Your task to perform on an android device: Open maps Image 0: 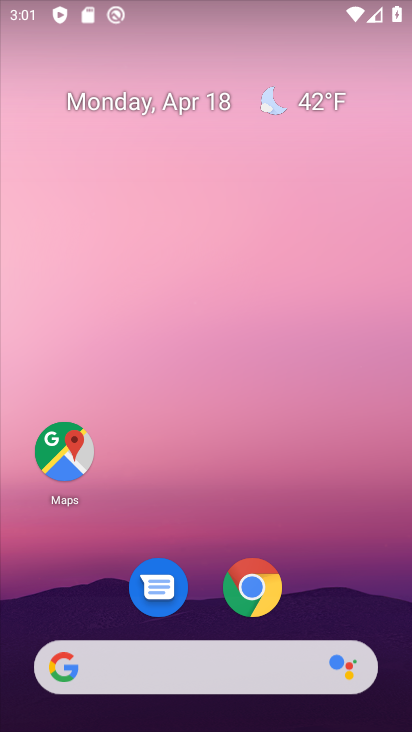
Step 0: click (84, 456)
Your task to perform on an android device: Open maps Image 1: 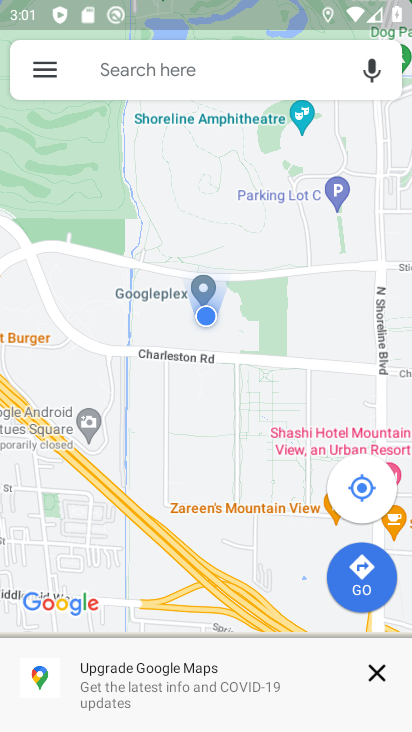
Step 1: click (380, 669)
Your task to perform on an android device: Open maps Image 2: 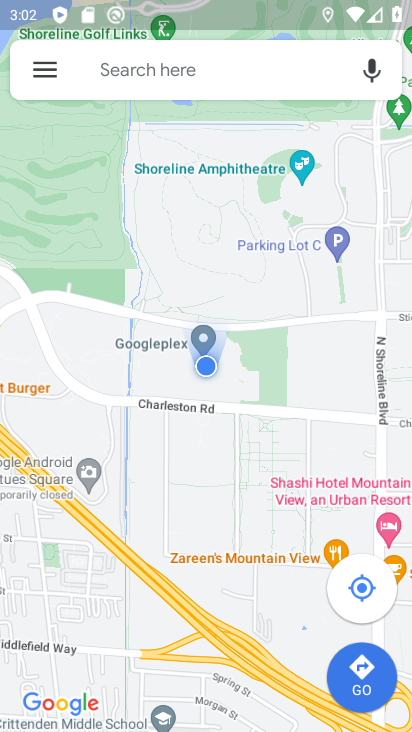
Step 2: task complete